Your task to perform on an android device: open wifi settings Image 0: 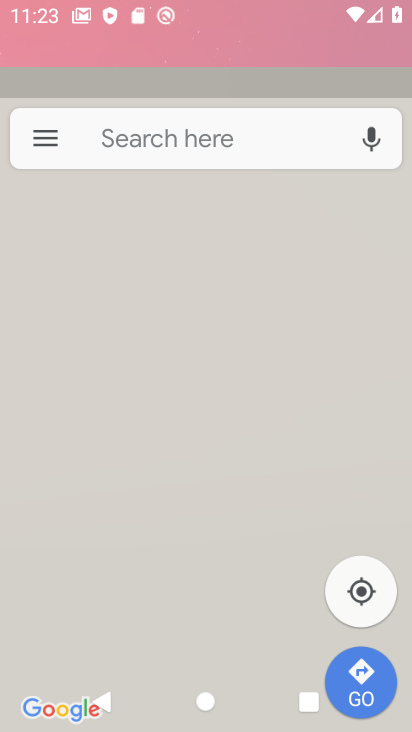
Step 0: press home button
Your task to perform on an android device: open wifi settings Image 1: 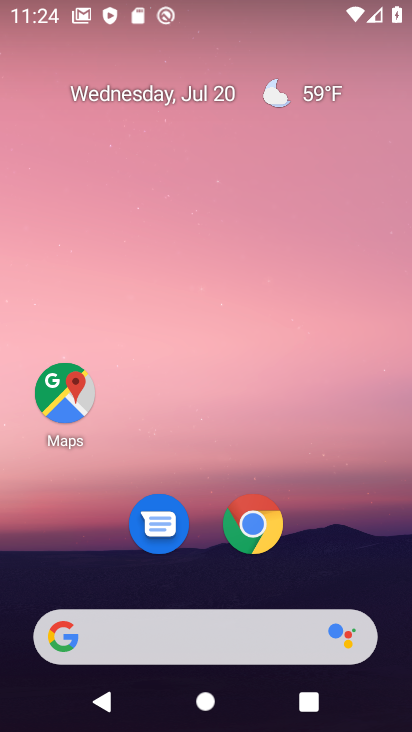
Step 1: press home button
Your task to perform on an android device: open wifi settings Image 2: 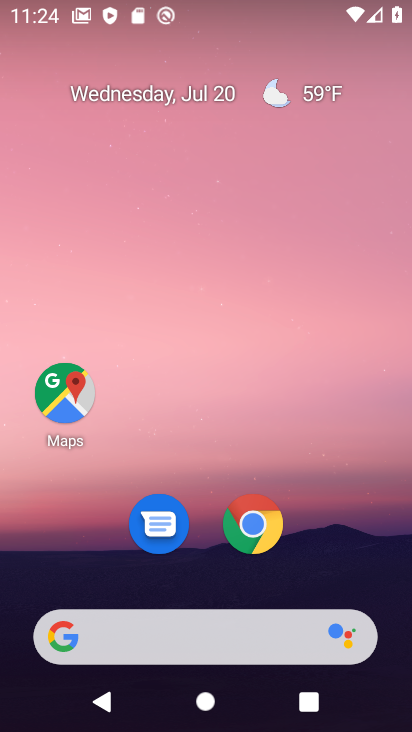
Step 2: drag from (186, 631) to (261, 30)
Your task to perform on an android device: open wifi settings Image 3: 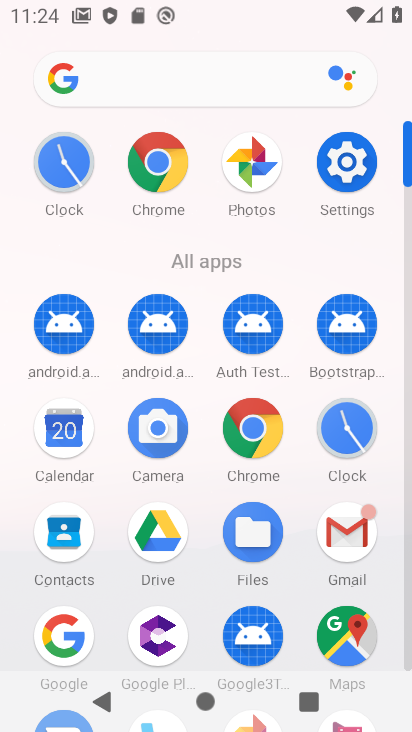
Step 3: click (344, 163)
Your task to perform on an android device: open wifi settings Image 4: 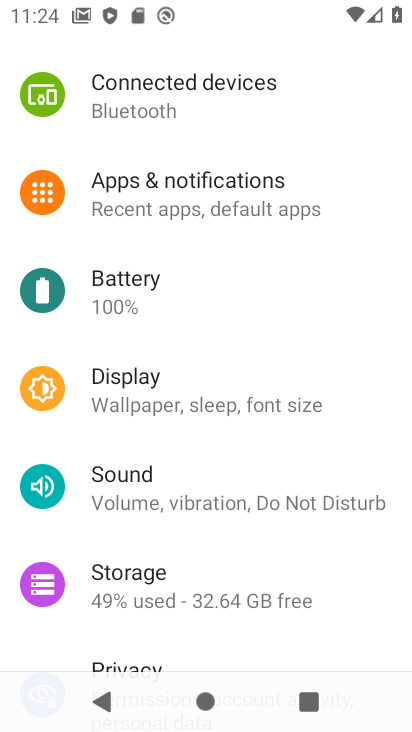
Step 4: drag from (308, 122) to (243, 621)
Your task to perform on an android device: open wifi settings Image 5: 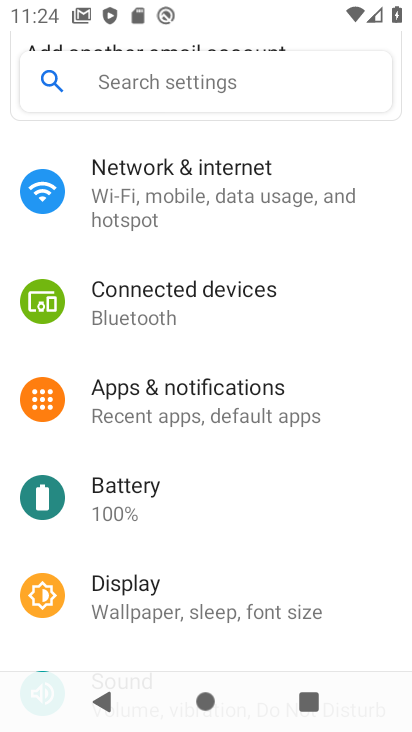
Step 5: click (190, 183)
Your task to perform on an android device: open wifi settings Image 6: 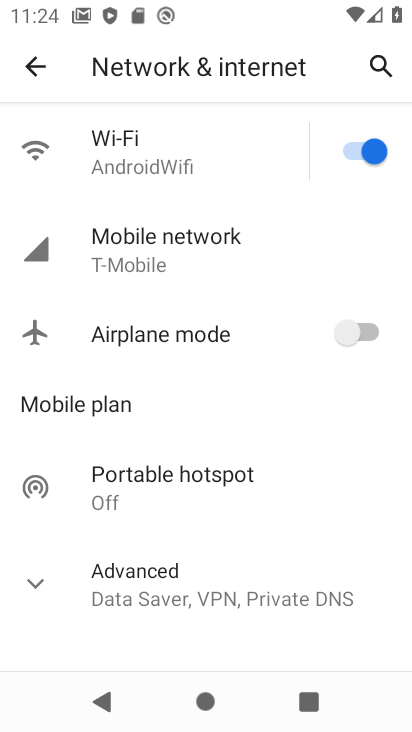
Step 6: click (101, 161)
Your task to perform on an android device: open wifi settings Image 7: 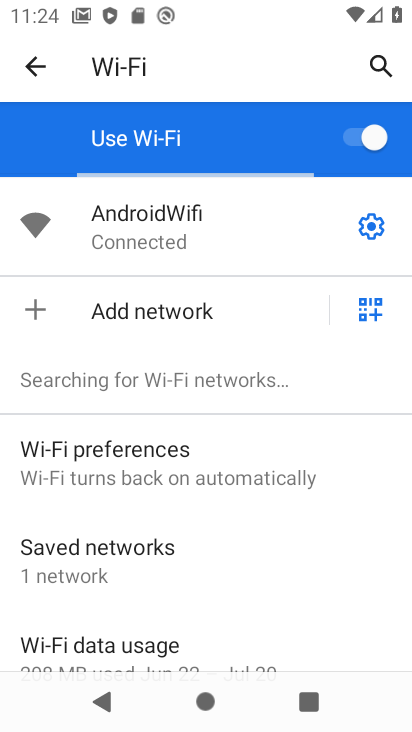
Step 7: task complete